Your task to perform on an android device: set default search engine in the chrome app Image 0: 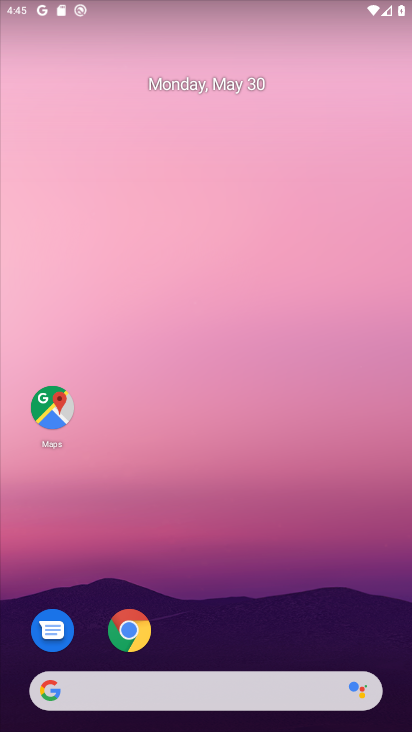
Step 0: click (128, 629)
Your task to perform on an android device: set default search engine in the chrome app Image 1: 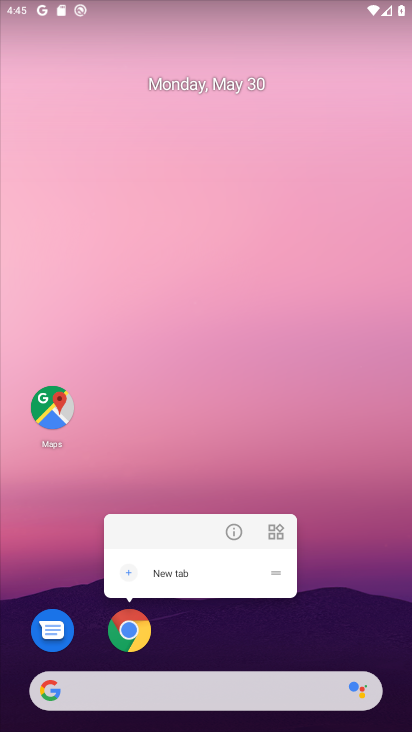
Step 1: click (128, 630)
Your task to perform on an android device: set default search engine in the chrome app Image 2: 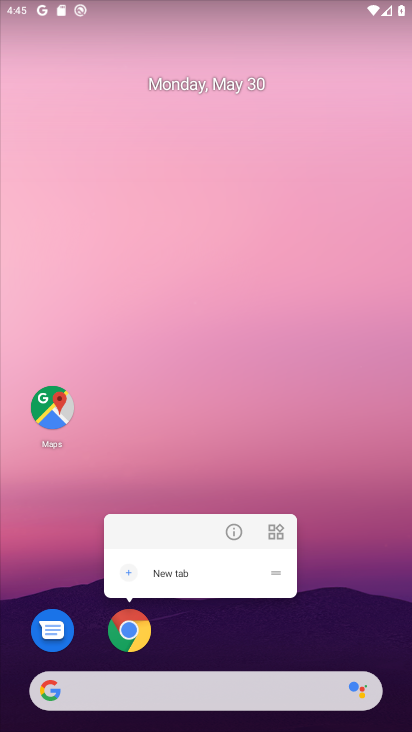
Step 2: click (292, 649)
Your task to perform on an android device: set default search engine in the chrome app Image 3: 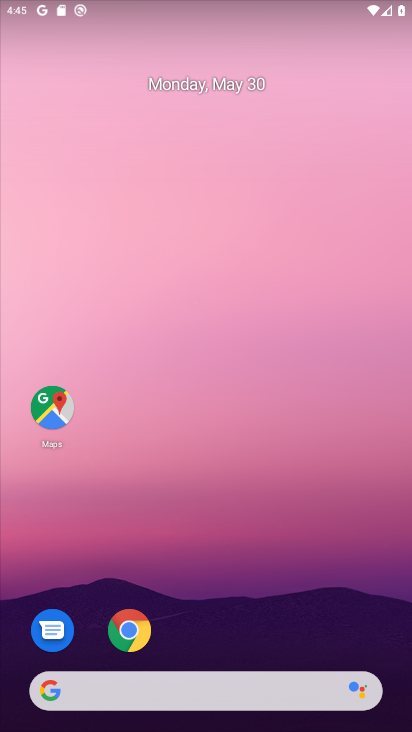
Step 3: drag from (292, 649) to (324, 143)
Your task to perform on an android device: set default search engine in the chrome app Image 4: 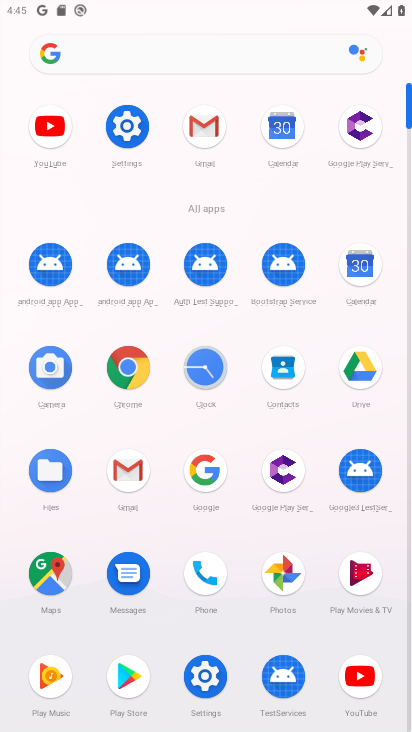
Step 4: click (135, 368)
Your task to perform on an android device: set default search engine in the chrome app Image 5: 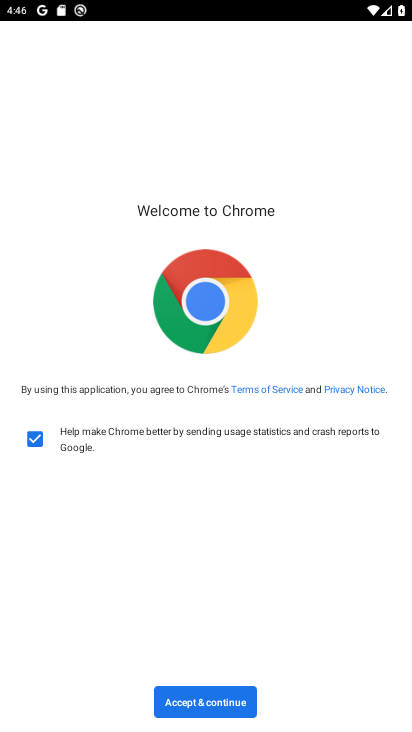
Step 5: click (192, 709)
Your task to perform on an android device: set default search engine in the chrome app Image 6: 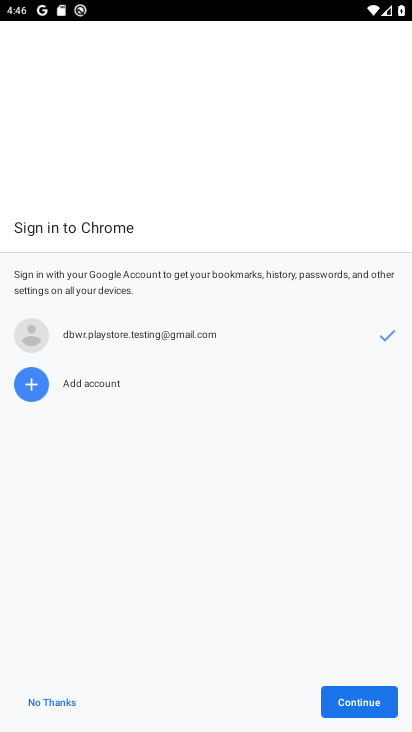
Step 6: click (339, 709)
Your task to perform on an android device: set default search engine in the chrome app Image 7: 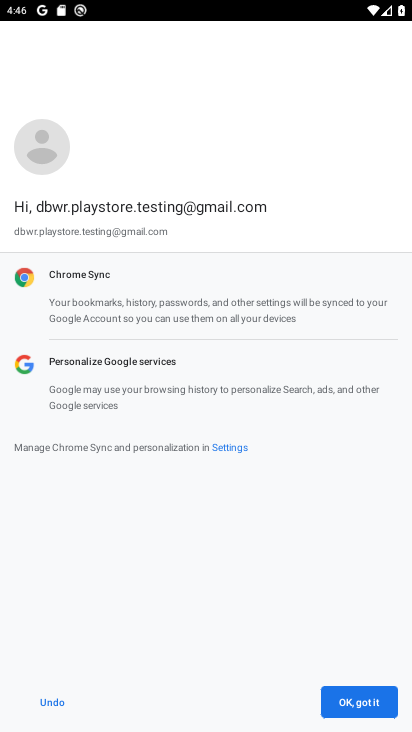
Step 7: click (341, 703)
Your task to perform on an android device: set default search engine in the chrome app Image 8: 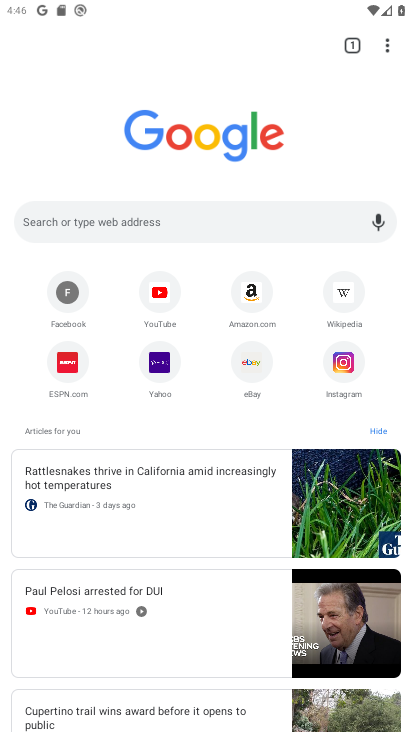
Step 8: drag from (390, 50) to (211, 383)
Your task to perform on an android device: set default search engine in the chrome app Image 9: 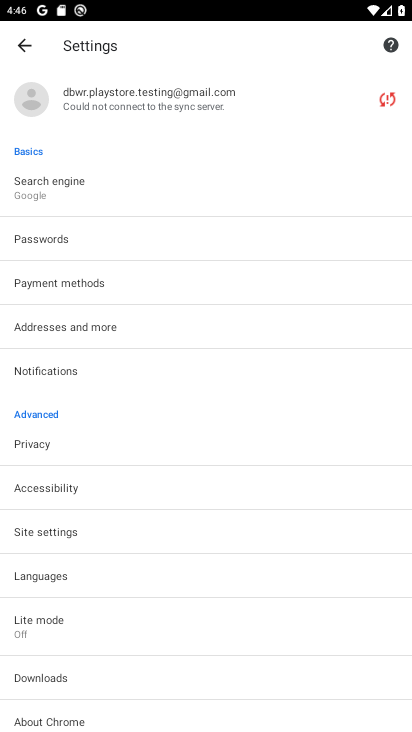
Step 9: click (50, 184)
Your task to perform on an android device: set default search engine in the chrome app Image 10: 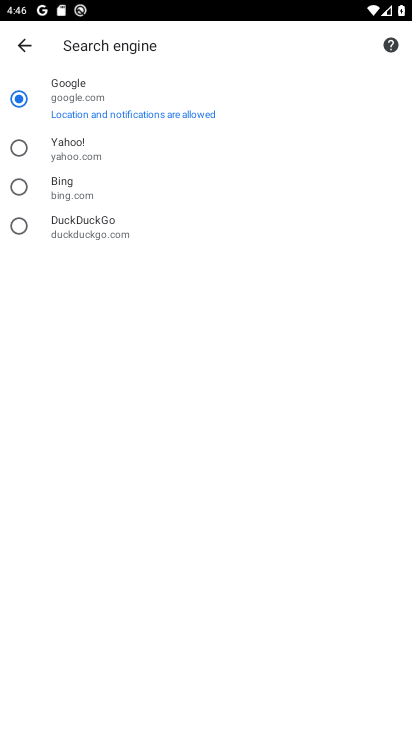
Step 10: click (21, 149)
Your task to perform on an android device: set default search engine in the chrome app Image 11: 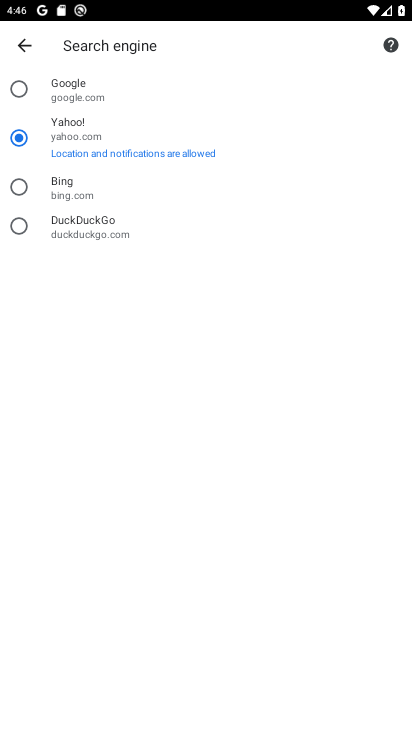
Step 11: task complete